Your task to perform on an android device: toggle data saver in the chrome app Image 0: 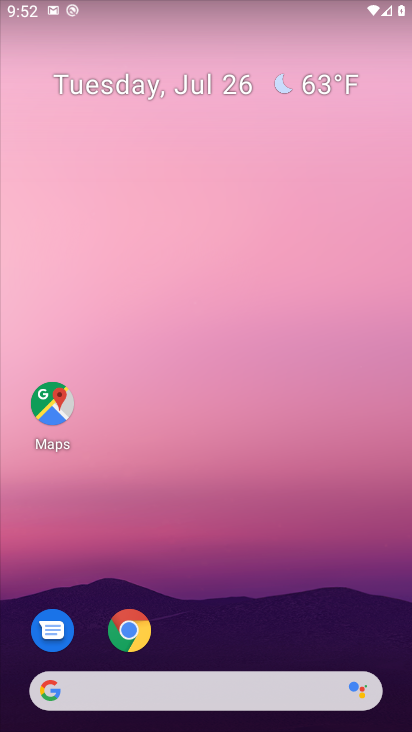
Step 0: press back button
Your task to perform on an android device: toggle data saver in the chrome app Image 1: 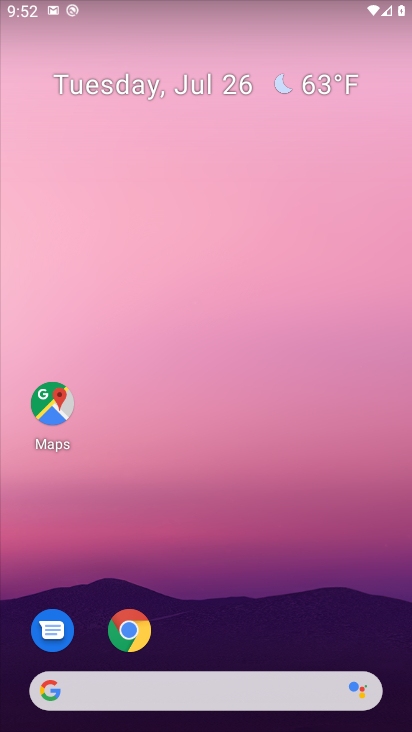
Step 1: click (128, 625)
Your task to perform on an android device: toggle data saver in the chrome app Image 2: 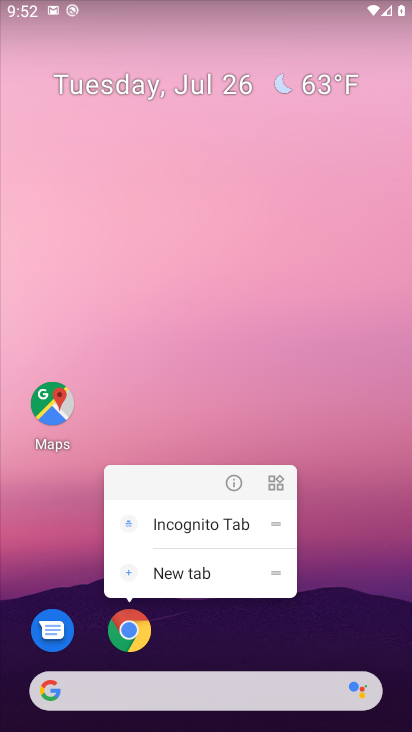
Step 2: click (124, 623)
Your task to perform on an android device: toggle data saver in the chrome app Image 3: 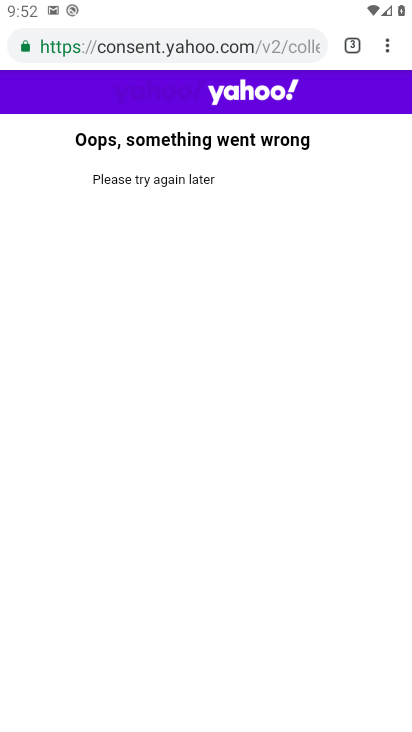
Step 3: click (389, 46)
Your task to perform on an android device: toggle data saver in the chrome app Image 4: 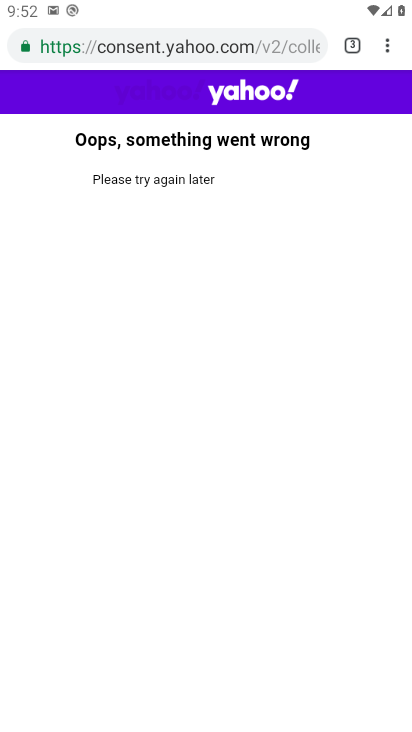
Step 4: click (387, 45)
Your task to perform on an android device: toggle data saver in the chrome app Image 5: 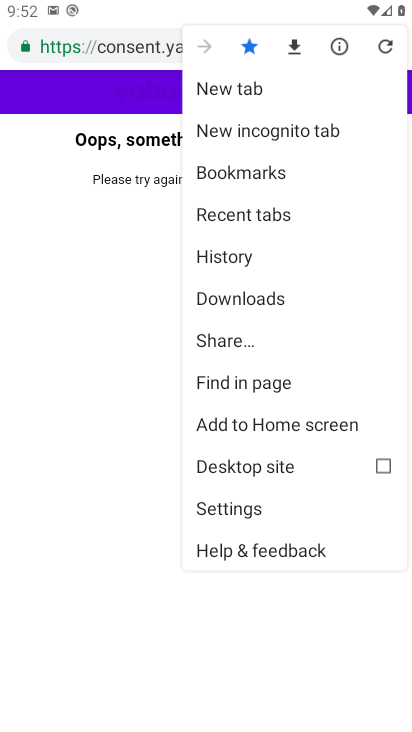
Step 5: click (271, 509)
Your task to perform on an android device: toggle data saver in the chrome app Image 6: 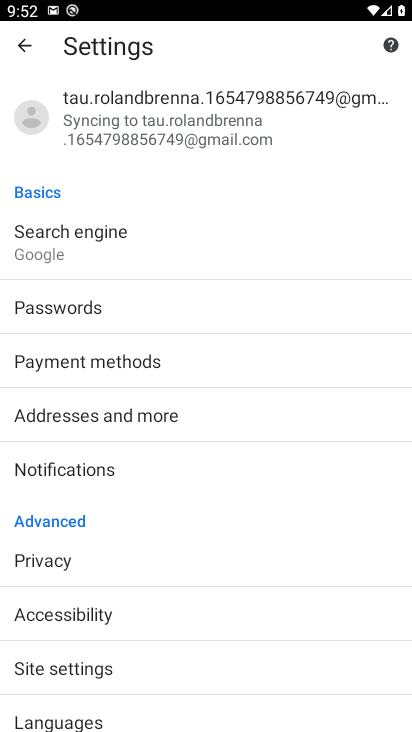
Step 6: drag from (142, 699) to (160, 222)
Your task to perform on an android device: toggle data saver in the chrome app Image 7: 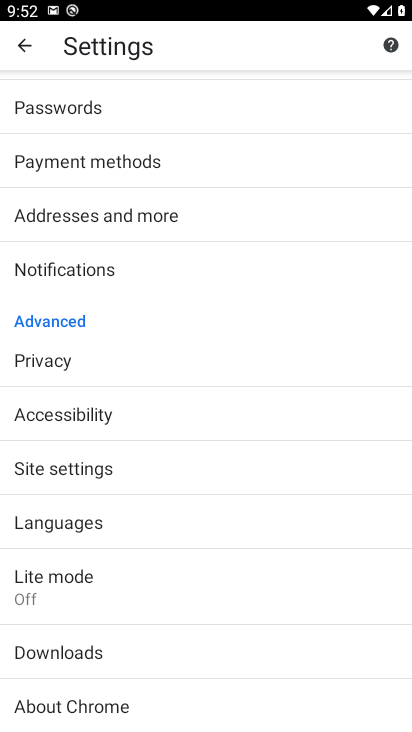
Step 7: click (57, 590)
Your task to perform on an android device: toggle data saver in the chrome app Image 8: 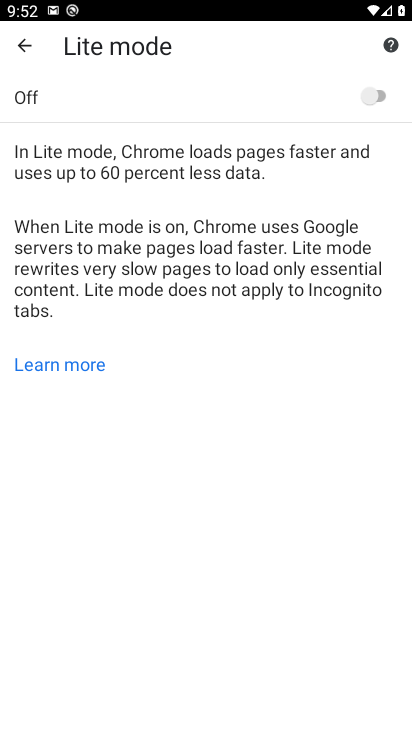
Step 8: click (375, 90)
Your task to perform on an android device: toggle data saver in the chrome app Image 9: 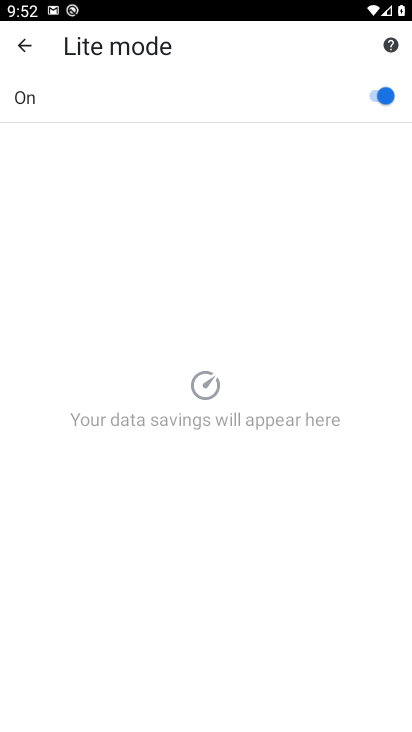
Step 9: task complete